Your task to perform on an android device: turn on the 12-hour format for clock Image 0: 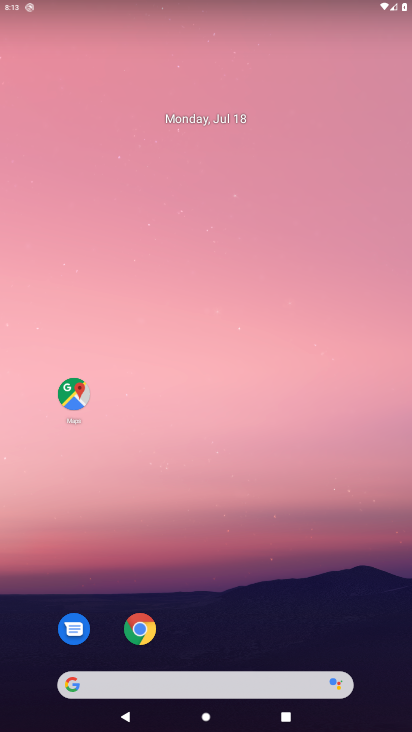
Step 0: press home button
Your task to perform on an android device: turn on the 12-hour format for clock Image 1: 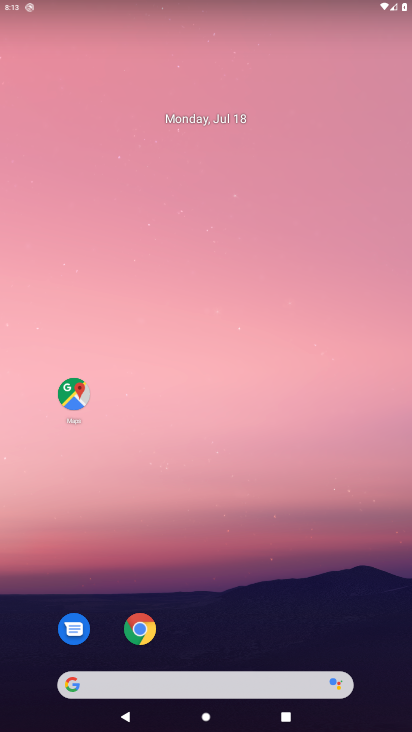
Step 1: drag from (112, 504) to (225, 58)
Your task to perform on an android device: turn on the 12-hour format for clock Image 2: 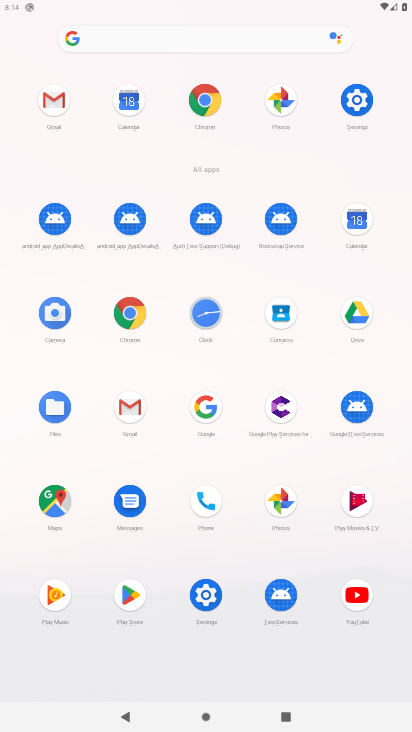
Step 2: click (208, 317)
Your task to perform on an android device: turn on the 12-hour format for clock Image 3: 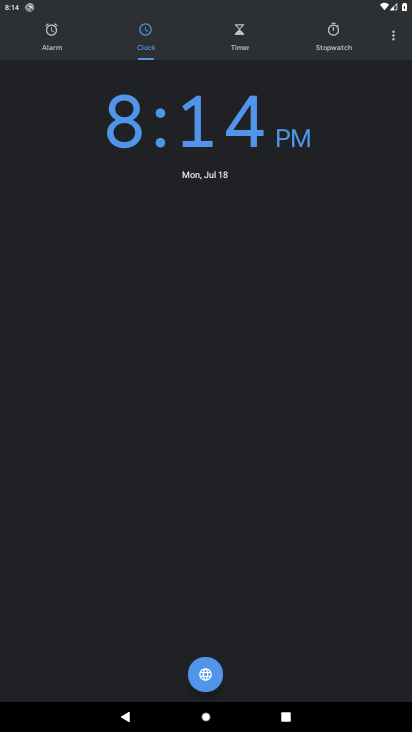
Step 3: click (390, 35)
Your task to perform on an android device: turn on the 12-hour format for clock Image 4: 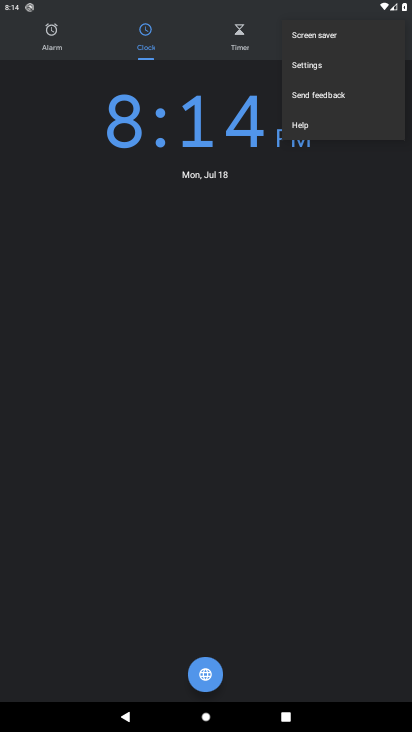
Step 4: click (319, 56)
Your task to perform on an android device: turn on the 12-hour format for clock Image 5: 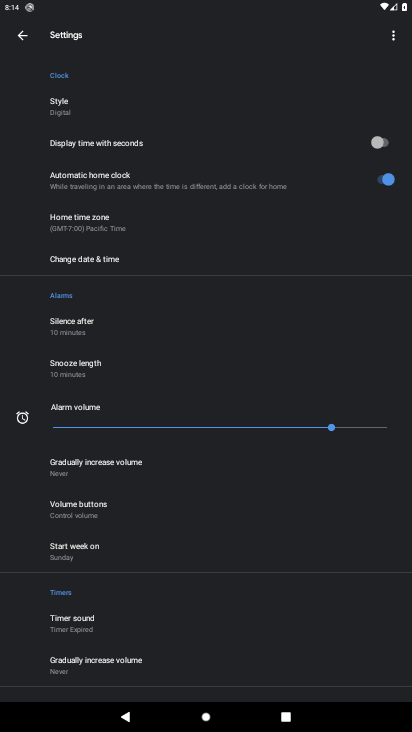
Step 5: click (116, 271)
Your task to perform on an android device: turn on the 12-hour format for clock Image 6: 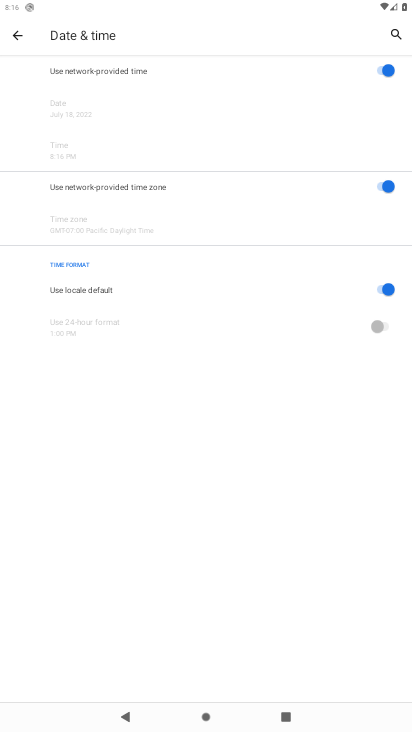
Step 6: task complete